Your task to perform on an android device: Is it going to rain tomorrow? Image 0: 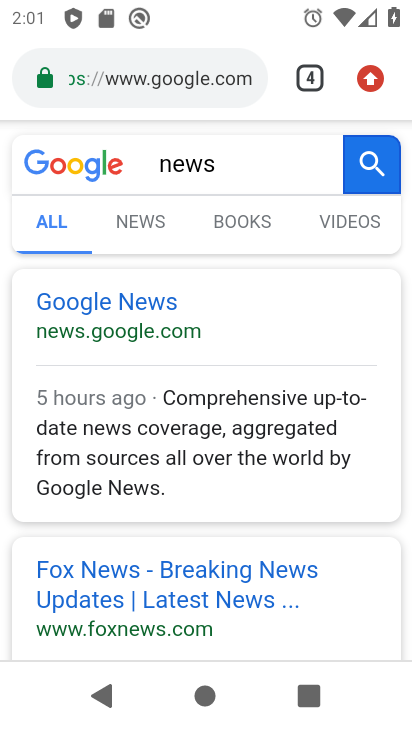
Step 0: press home button
Your task to perform on an android device: Is it going to rain tomorrow? Image 1: 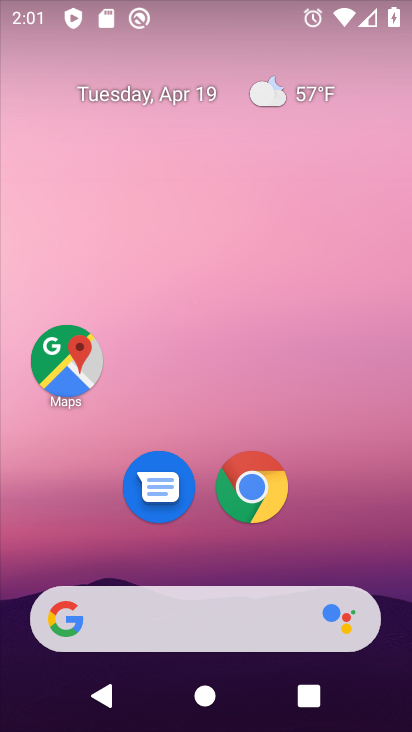
Step 1: click (274, 486)
Your task to perform on an android device: Is it going to rain tomorrow? Image 2: 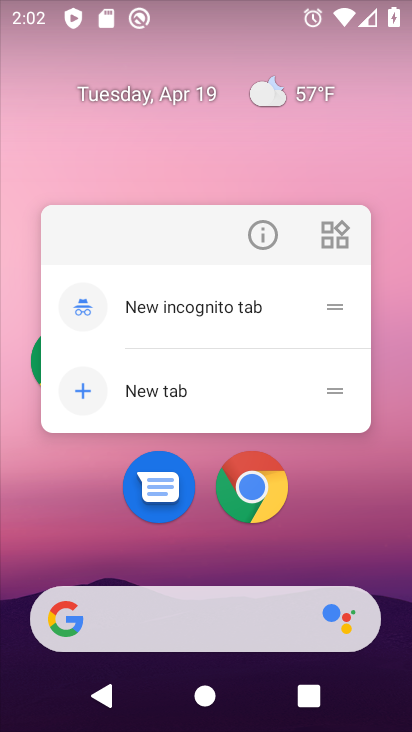
Step 2: click (268, 494)
Your task to perform on an android device: Is it going to rain tomorrow? Image 3: 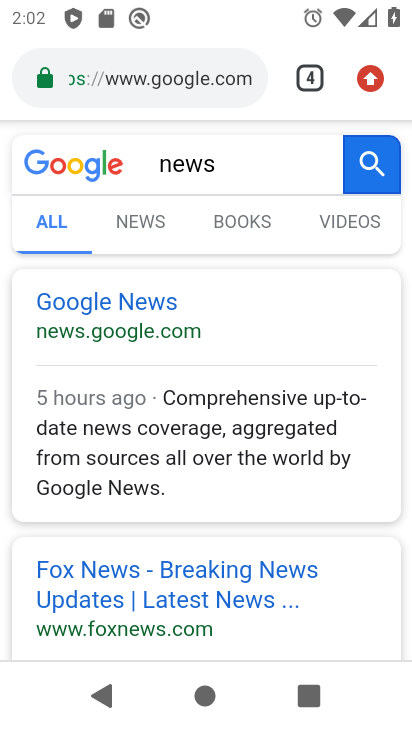
Step 3: click (229, 170)
Your task to perform on an android device: Is it going to rain tomorrow? Image 4: 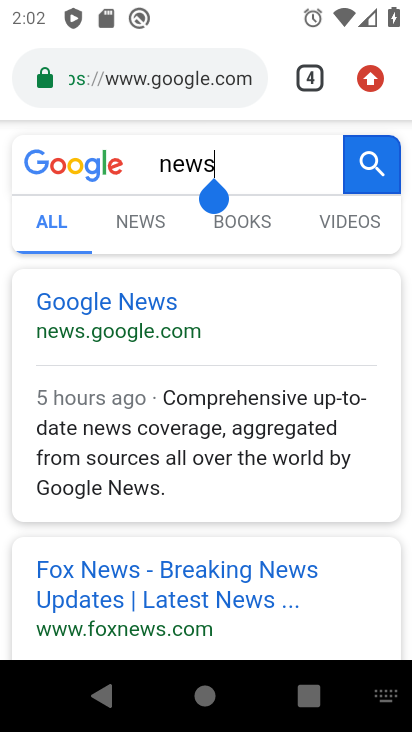
Step 4: click (311, 90)
Your task to perform on an android device: Is it going to rain tomorrow? Image 5: 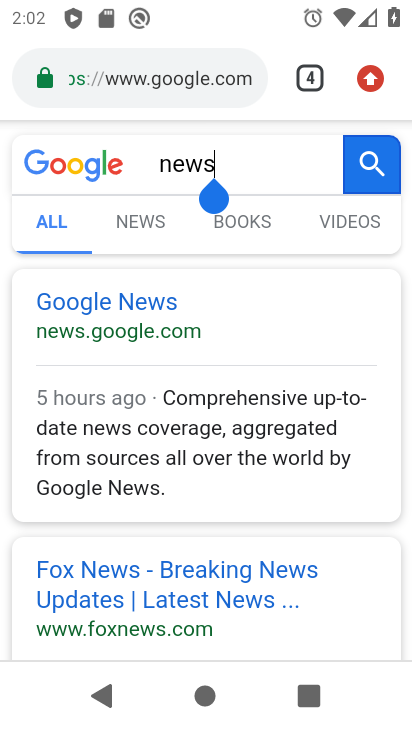
Step 5: click (326, 83)
Your task to perform on an android device: Is it going to rain tomorrow? Image 6: 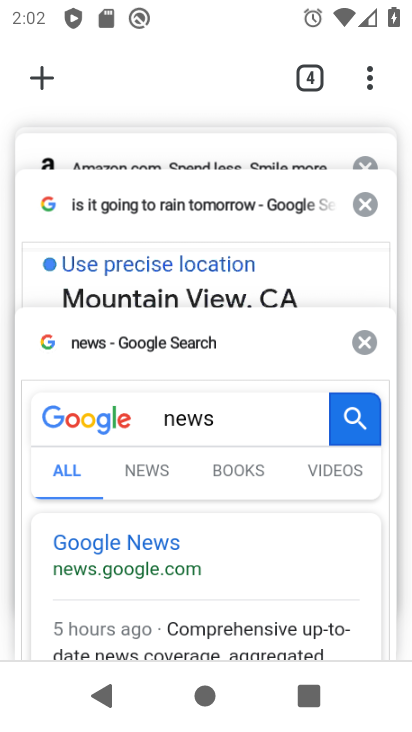
Step 6: click (43, 73)
Your task to perform on an android device: Is it going to rain tomorrow? Image 7: 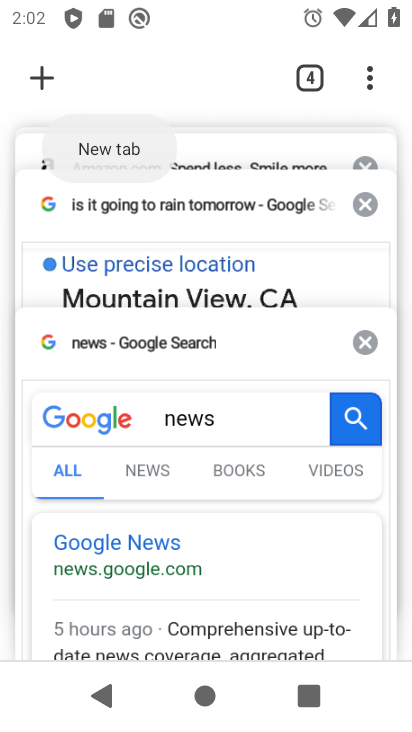
Step 7: click (109, 136)
Your task to perform on an android device: Is it going to rain tomorrow? Image 8: 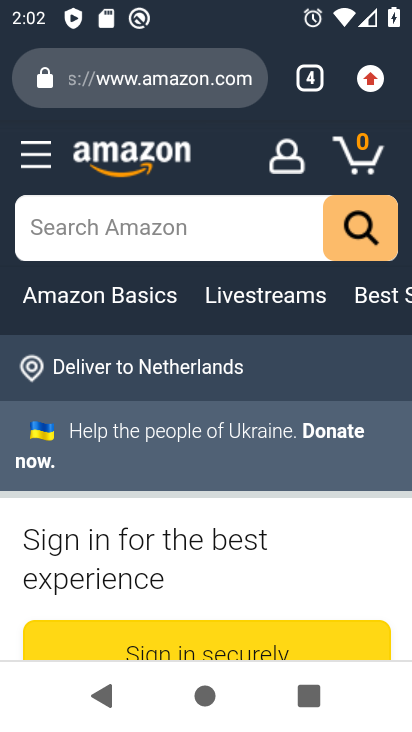
Step 8: click (312, 84)
Your task to perform on an android device: Is it going to rain tomorrow? Image 9: 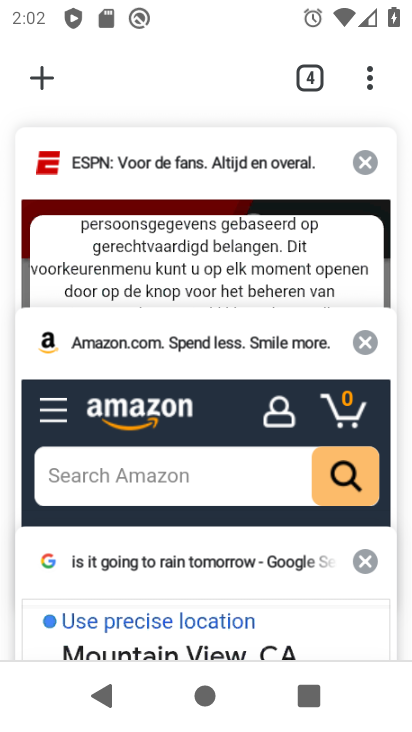
Step 9: click (47, 79)
Your task to perform on an android device: Is it going to rain tomorrow? Image 10: 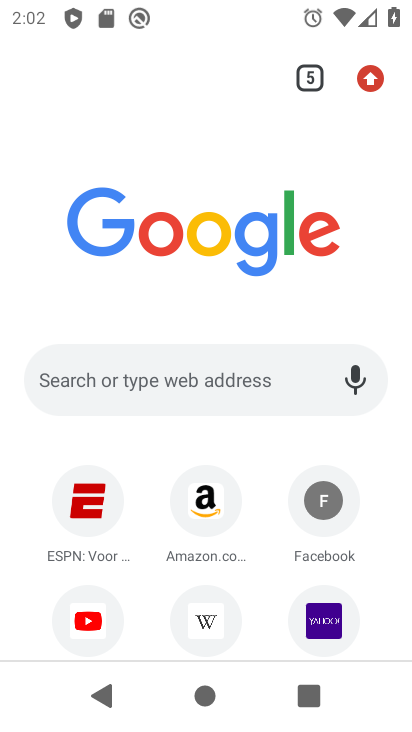
Step 10: click (142, 385)
Your task to perform on an android device: Is it going to rain tomorrow? Image 11: 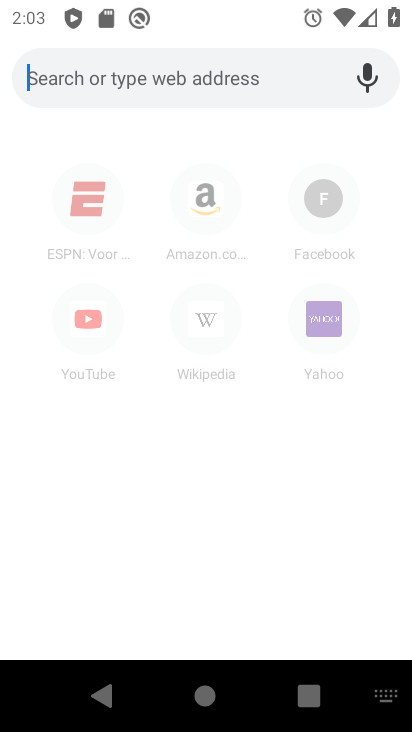
Step 11: type "is it going to rain  tomorrow"
Your task to perform on an android device: Is it going to rain tomorrow? Image 12: 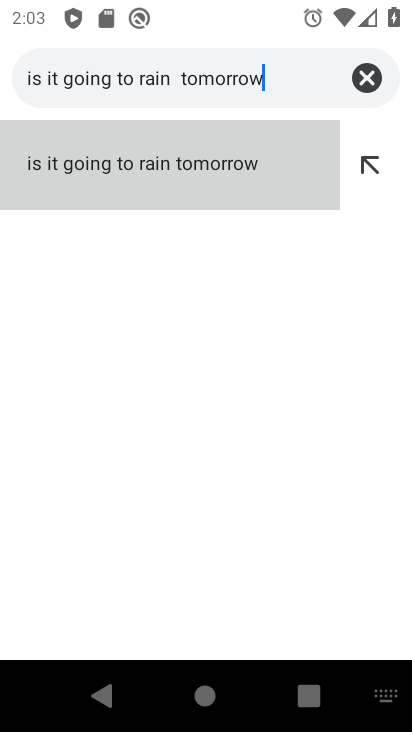
Step 12: click (144, 163)
Your task to perform on an android device: Is it going to rain tomorrow? Image 13: 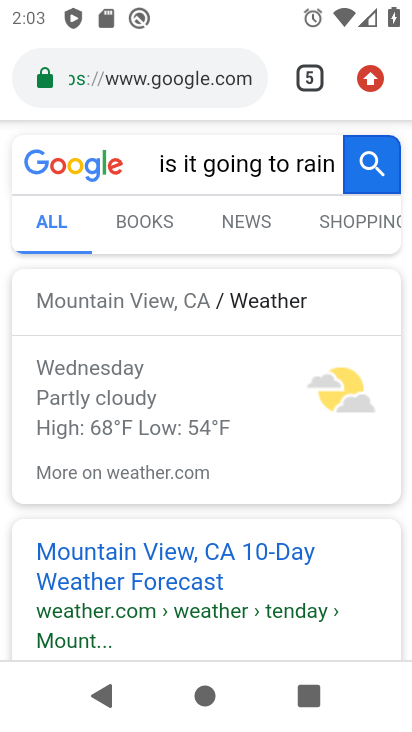
Step 13: click (155, 560)
Your task to perform on an android device: Is it going to rain tomorrow? Image 14: 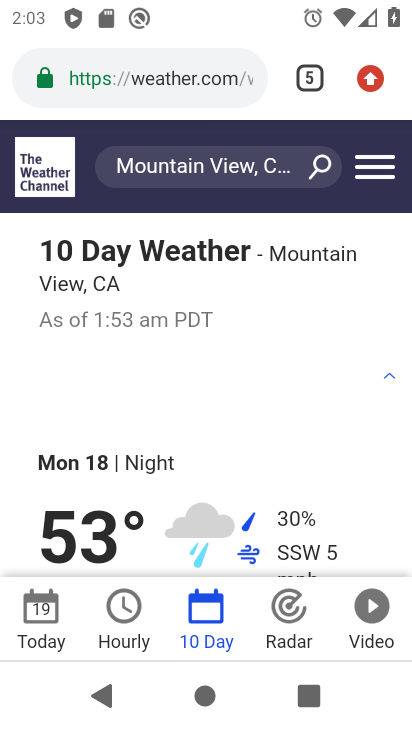
Step 14: task complete